Your task to perform on an android device: Search for pizza restaurants on Maps Image 0: 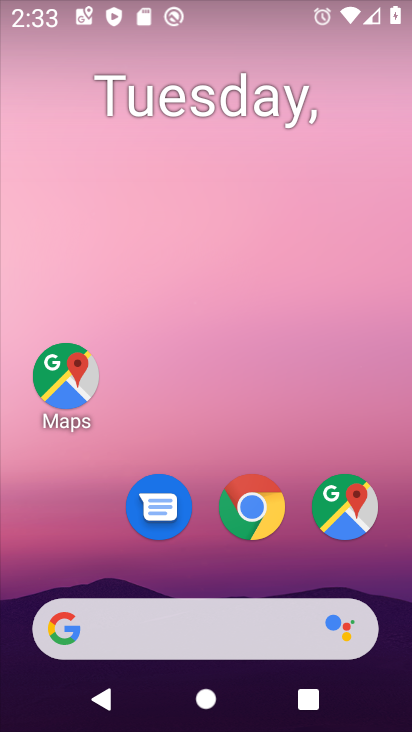
Step 0: drag from (209, 565) to (259, 231)
Your task to perform on an android device: Search for pizza restaurants on Maps Image 1: 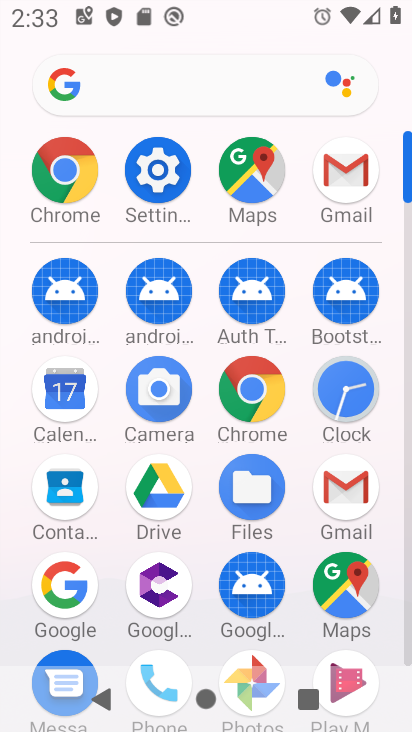
Step 1: click (350, 568)
Your task to perform on an android device: Search for pizza restaurants on Maps Image 2: 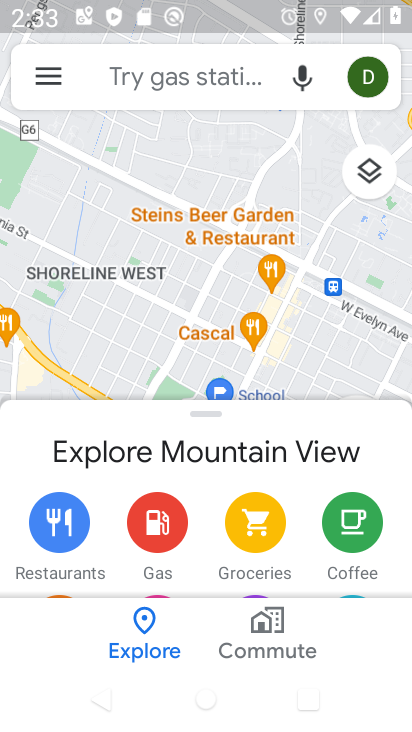
Step 2: click (177, 76)
Your task to perform on an android device: Search for pizza restaurants on Maps Image 3: 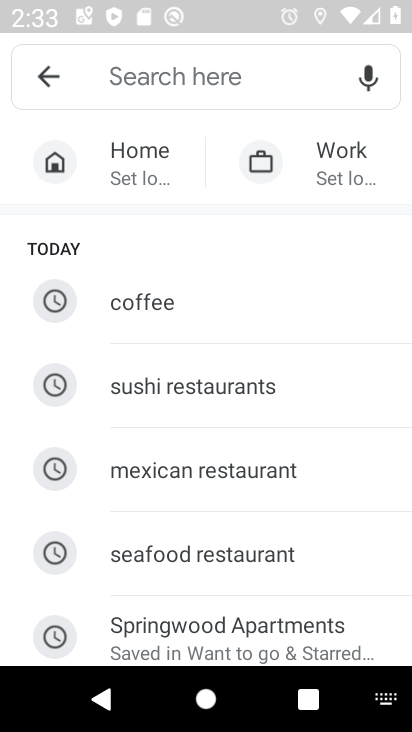
Step 3: drag from (240, 570) to (236, 644)
Your task to perform on an android device: Search for pizza restaurants on Maps Image 4: 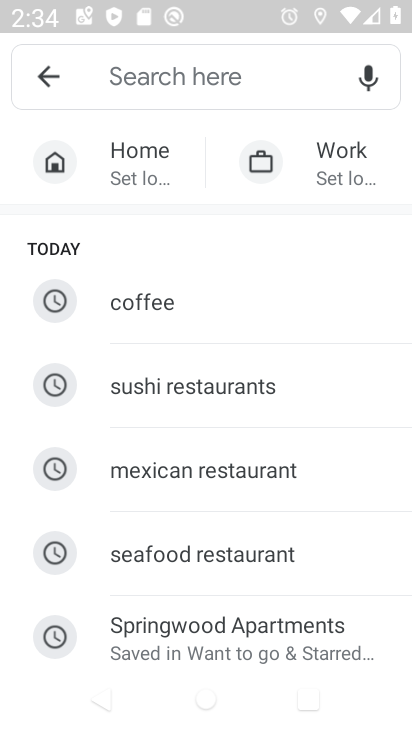
Step 4: click (167, 68)
Your task to perform on an android device: Search for pizza restaurants on Maps Image 5: 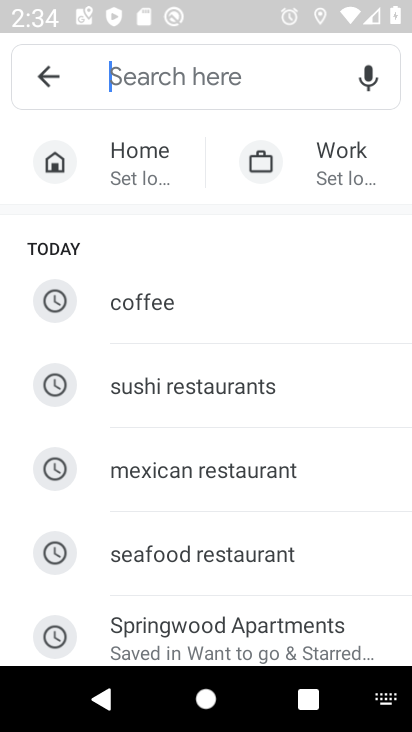
Step 5: type "pizza restaurants"
Your task to perform on an android device: Search for pizza restaurants on Maps Image 6: 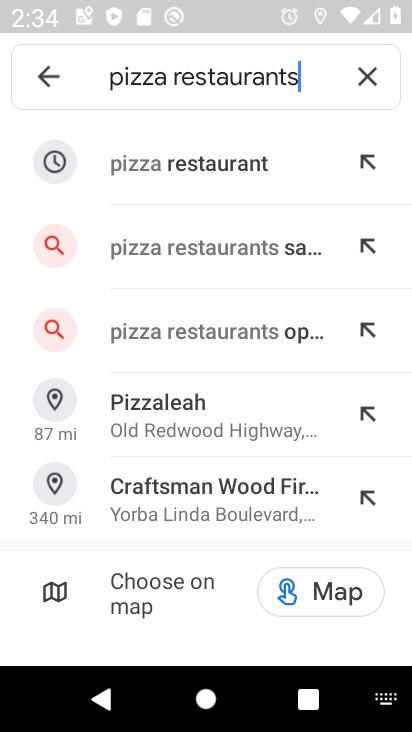
Step 6: click (262, 152)
Your task to perform on an android device: Search for pizza restaurants on Maps Image 7: 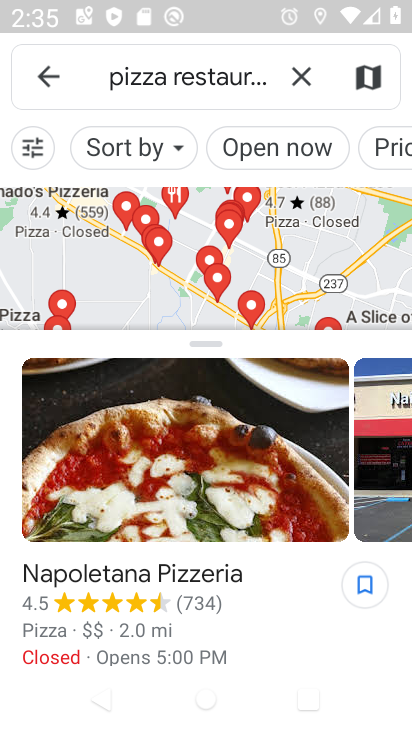
Step 7: task complete